Your task to perform on an android device: open chrome and create a bookmark for the current page Image 0: 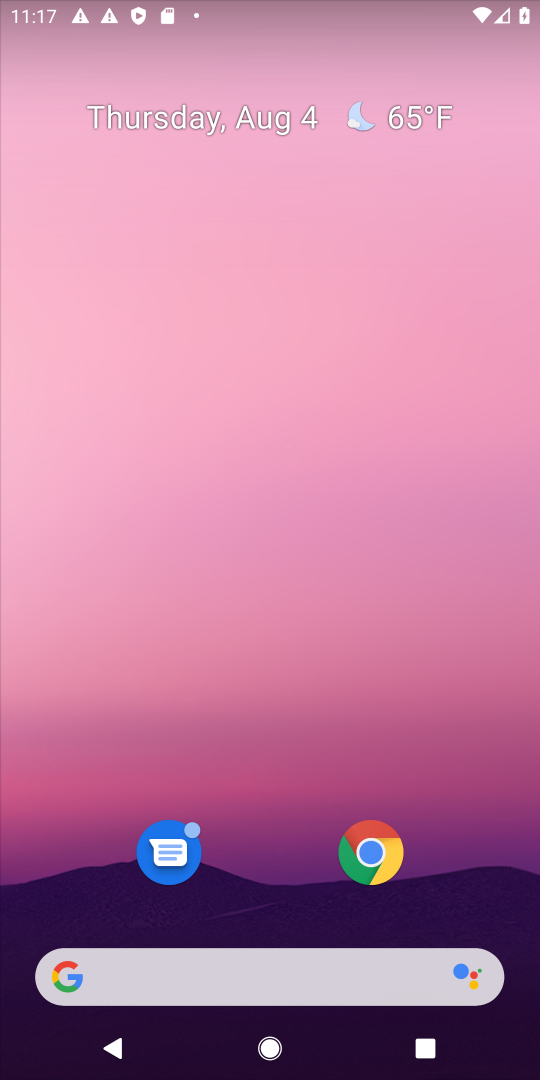
Step 0: click (374, 850)
Your task to perform on an android device: open chrome and create a bookmark for the current page Image 1: 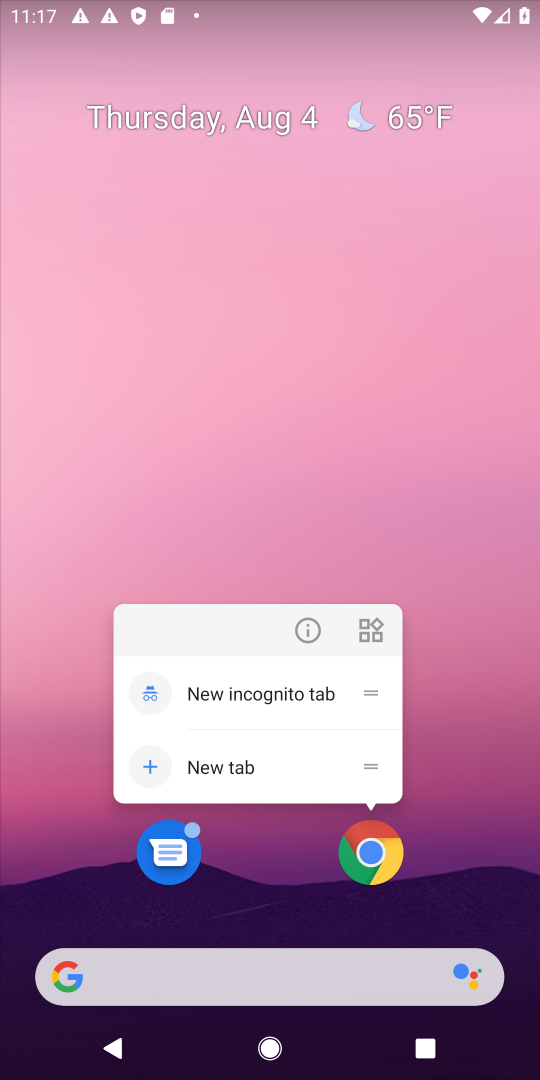
Step 1: click (358, 846)
Your task to perform on an android device: open chrome and create a bookmark for the current page Image 2: 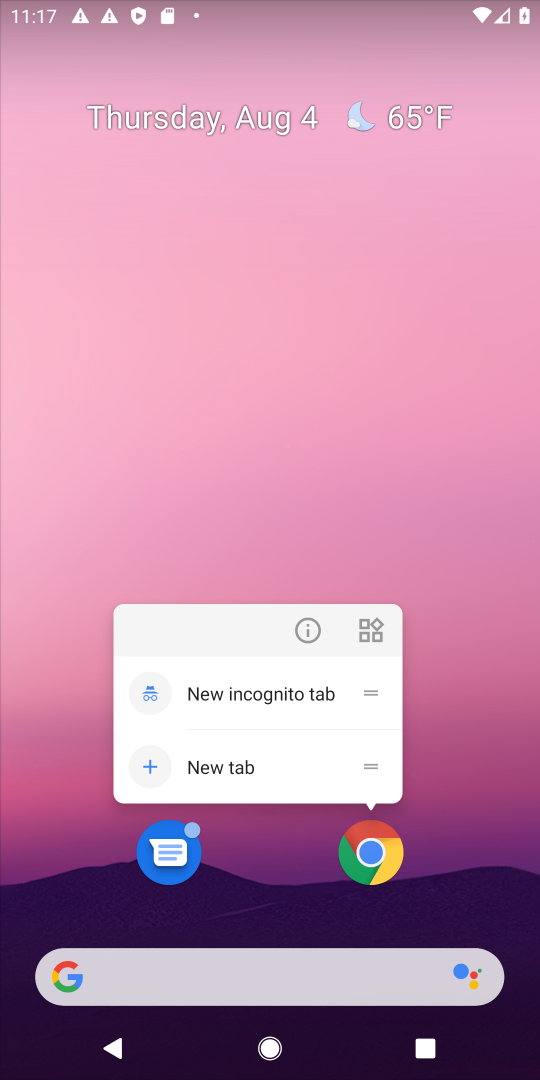
Step 2: click (364, 849)
Your task to perform on an android device: open chrome and create a bookmark for the current page Image 3: 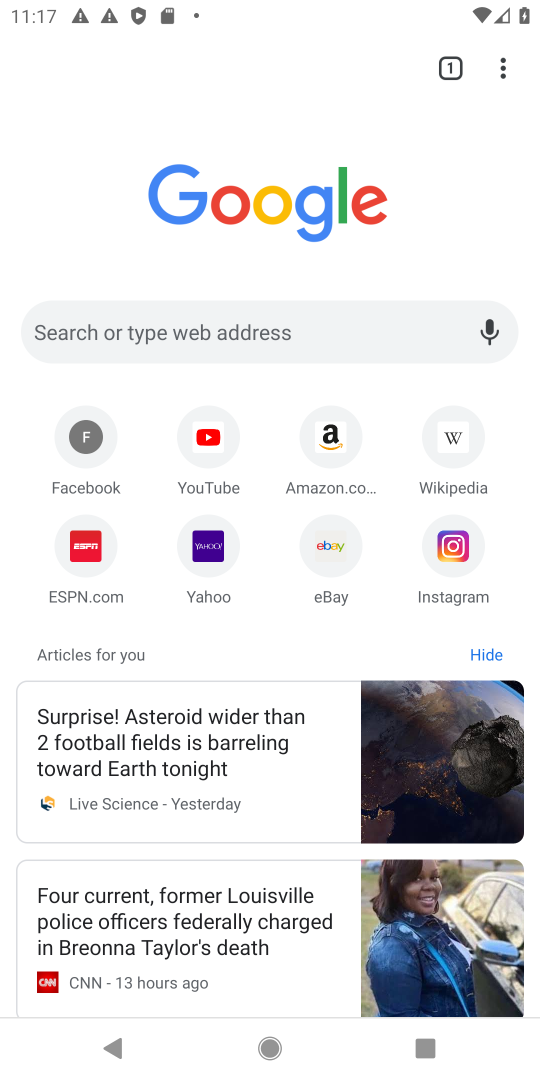
Step 3: click (507, 64)
Your task to perform on an android device: open chrome and create a bookmark for the current page Image 4: 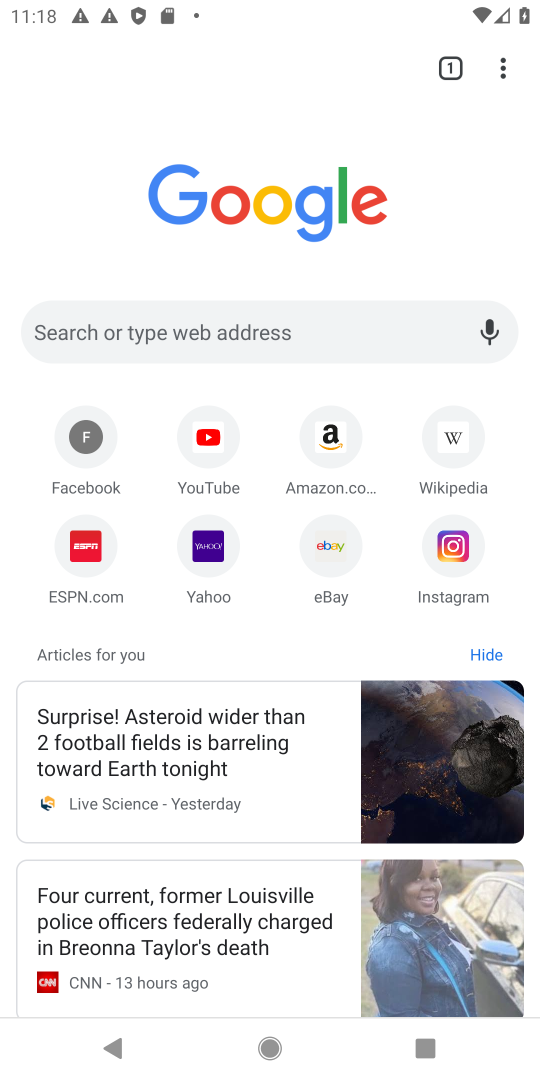
Step 4: click (507, 64)
Your task to perform on an android device: open chrome and create a bookmark for the current page Image 5: 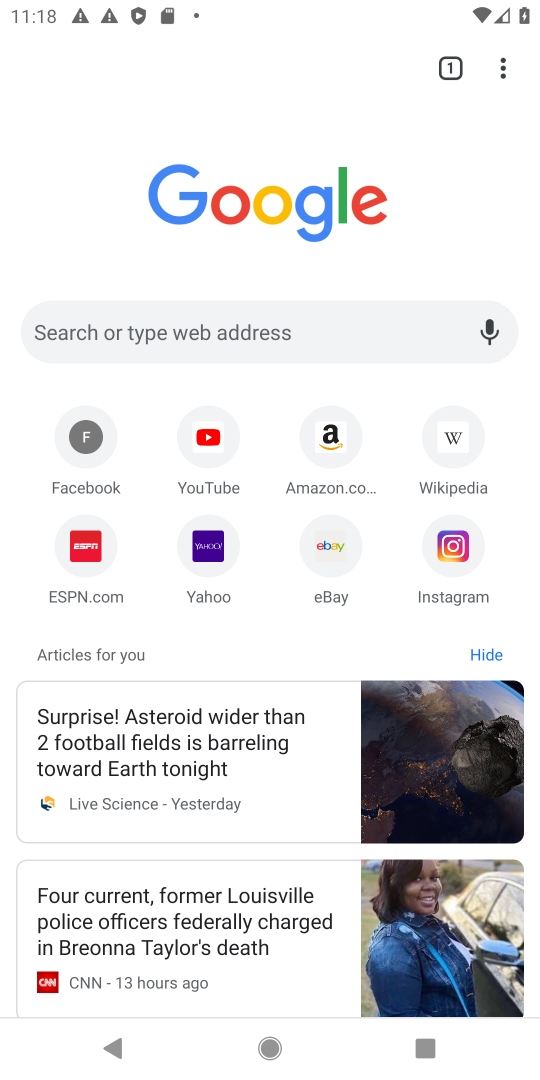
Step 5: click (501, 69)
Your task to perform on an android device: open chrome and create a bookmark for the current page Image 6: 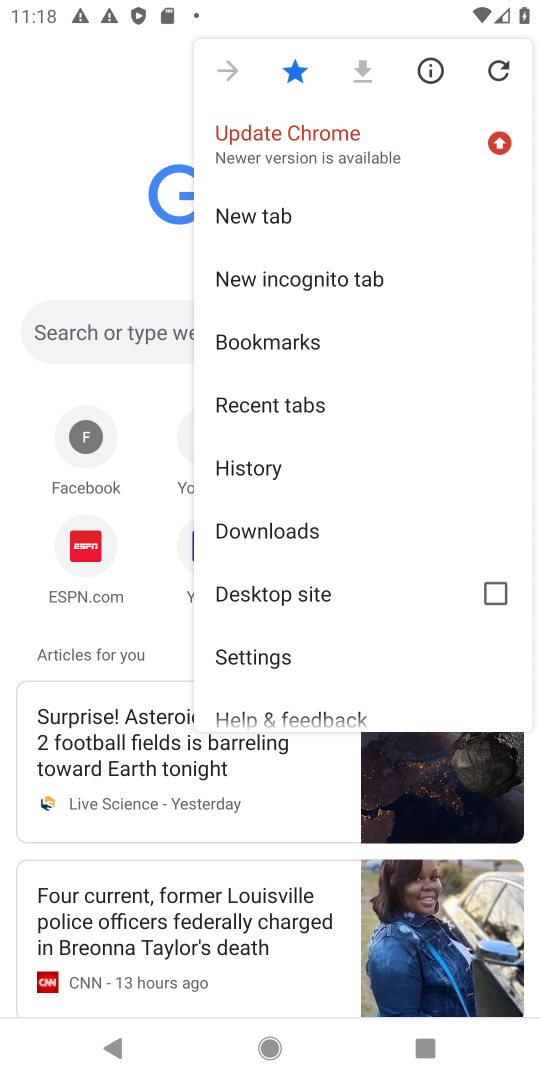
Step 6: task complete